Your task to perform on an android device: Show me recent news Image 0: 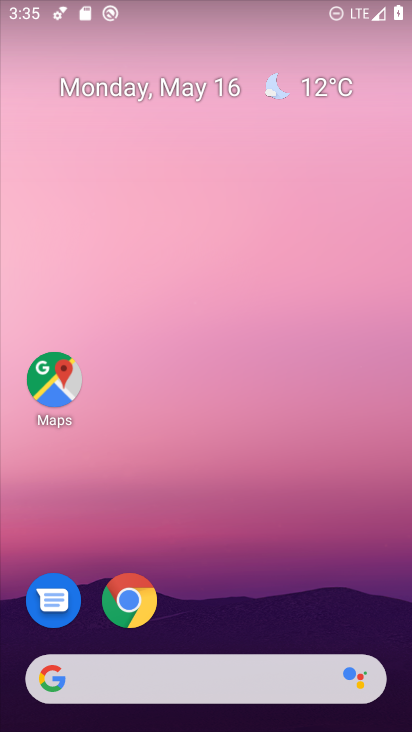
Step 0: drag from (274, 602) to (290, 134)
Your task to perform on an android device: Show me recent news Image 1: 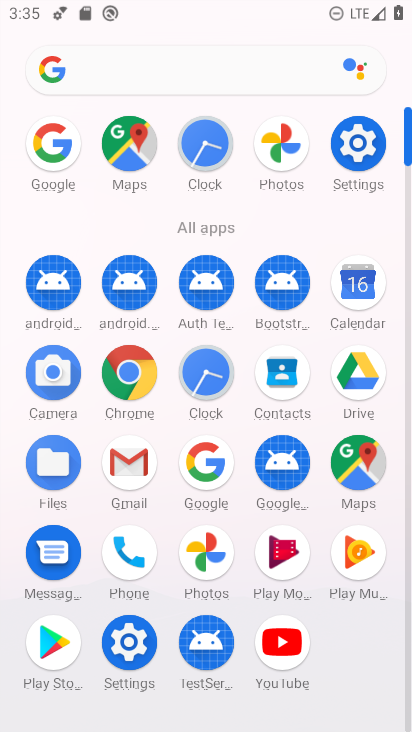
Step 1: click (140, 382)
Your task to perform on an android device: Show me recent news Image 2: 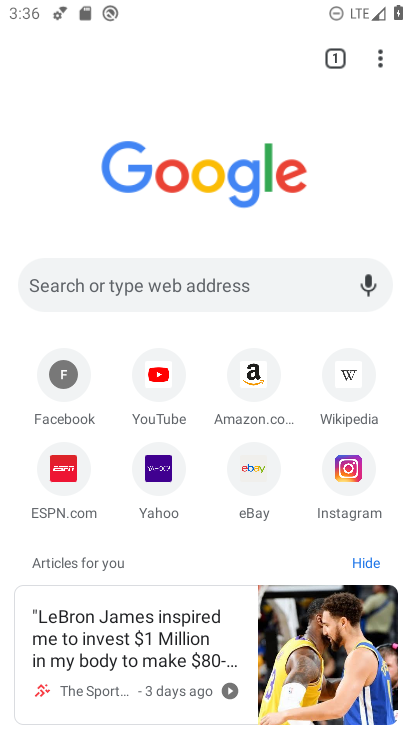
Step 2: click (230, 285)
Your task to perform on an android device: Show me recent news Image 3: 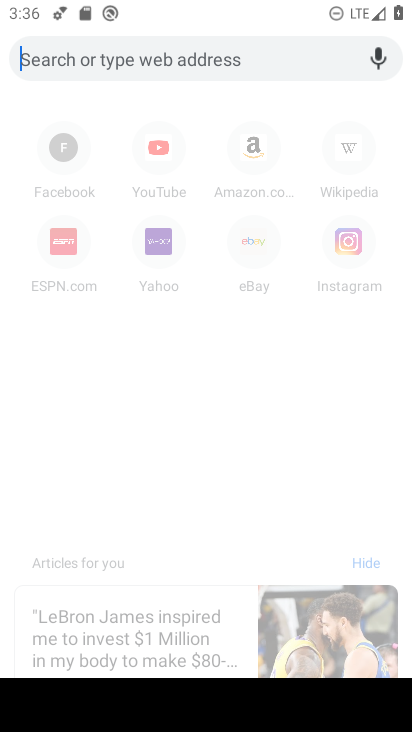
Step 3: type "news"
Your task to perform on an android device: Show me recent news Image 4: 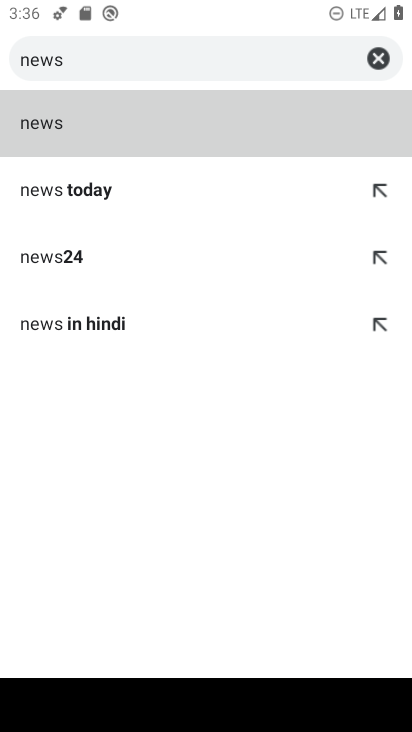
Step 4: click (53, 131)
Your task to perform on an android device: Show me recent news Image 5: 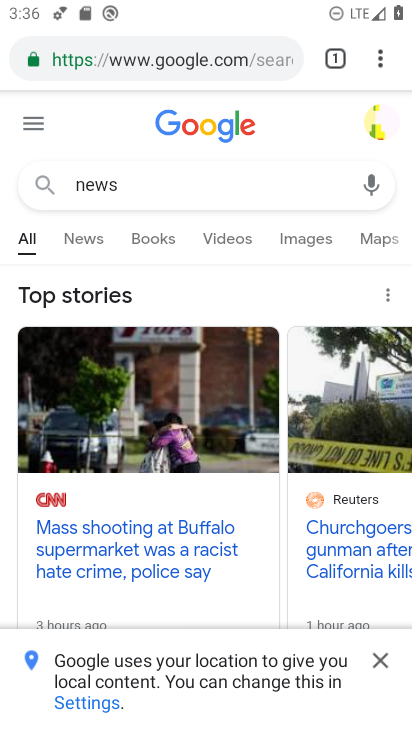
Step 5: click (88, 231)
Your task to perform on an android device: Show me recent news Image 6: 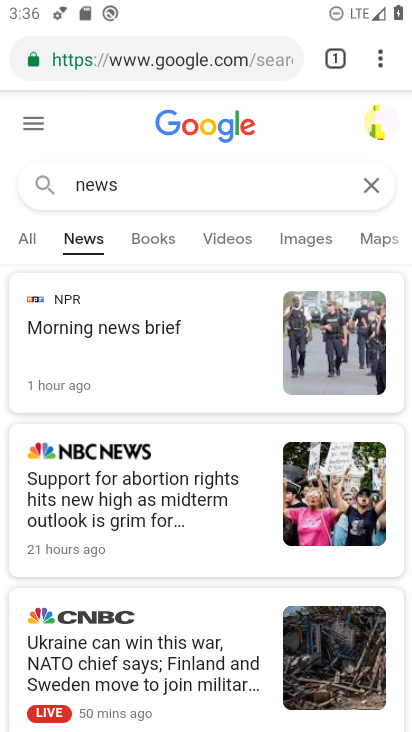
Step 6: task complete